Your task to perform on an android device: Is it going to rain tomorrow? Image 0: 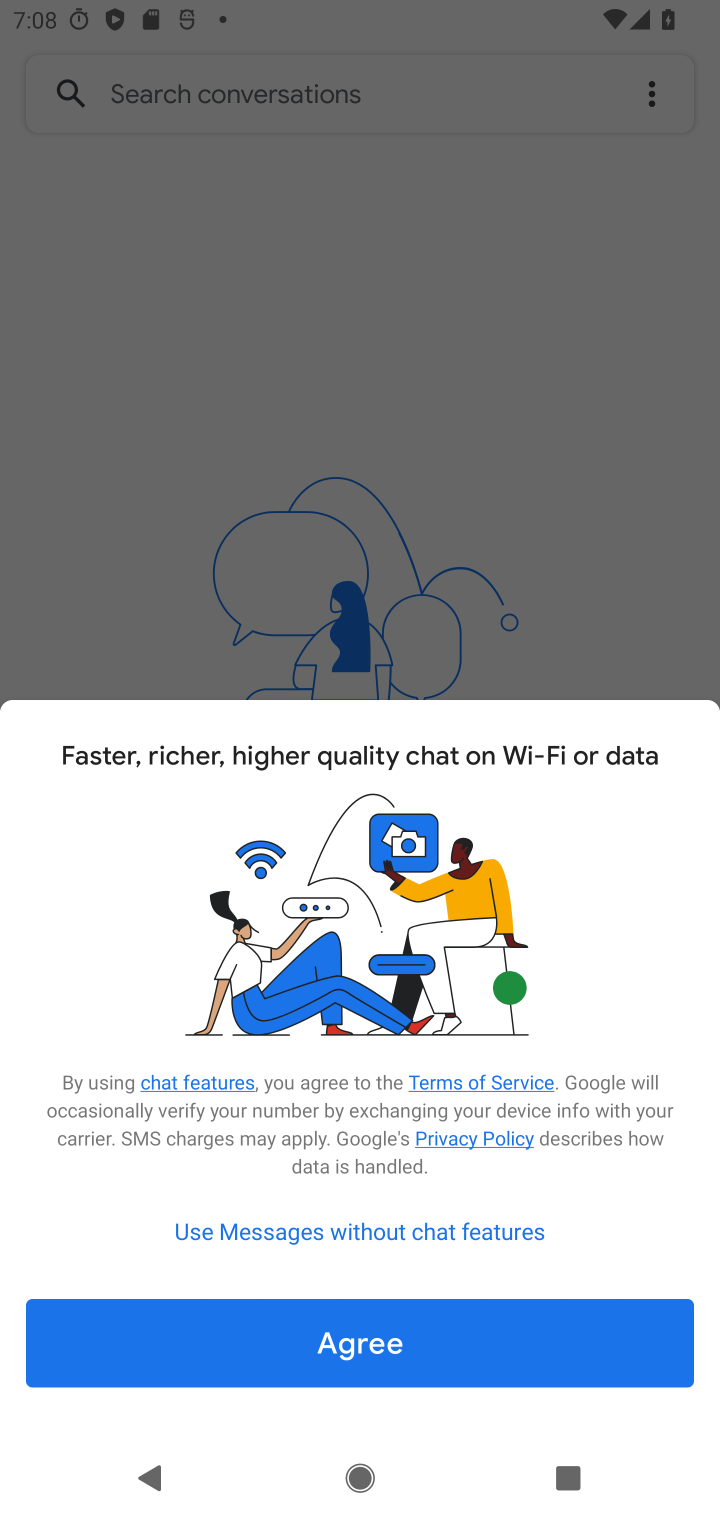
Step 0: press home button
Your task to perform on an android device: Is it going to rain tomorrow? Image 1: 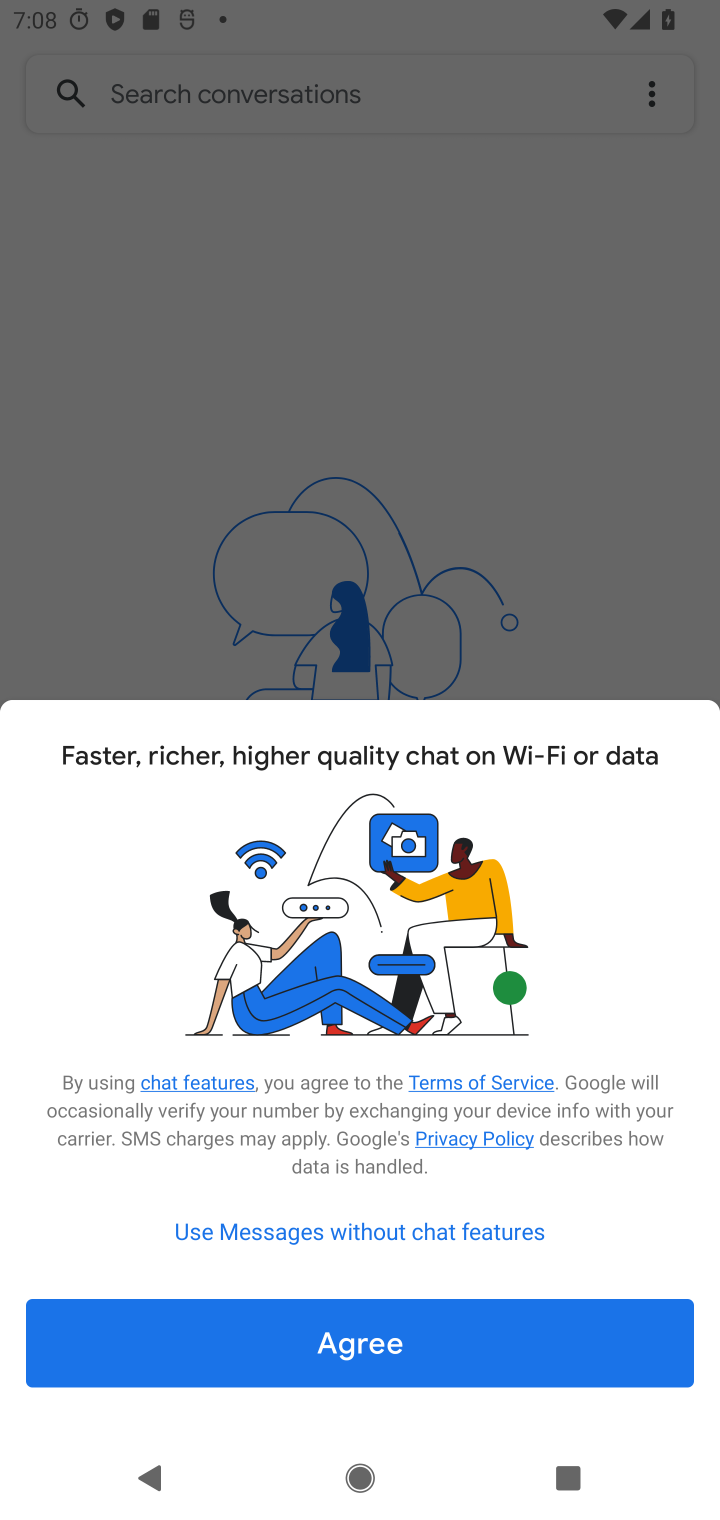
Step 1: press home button
Your task to perform on an android device: Is it going to rain tomorrow? Image 2: 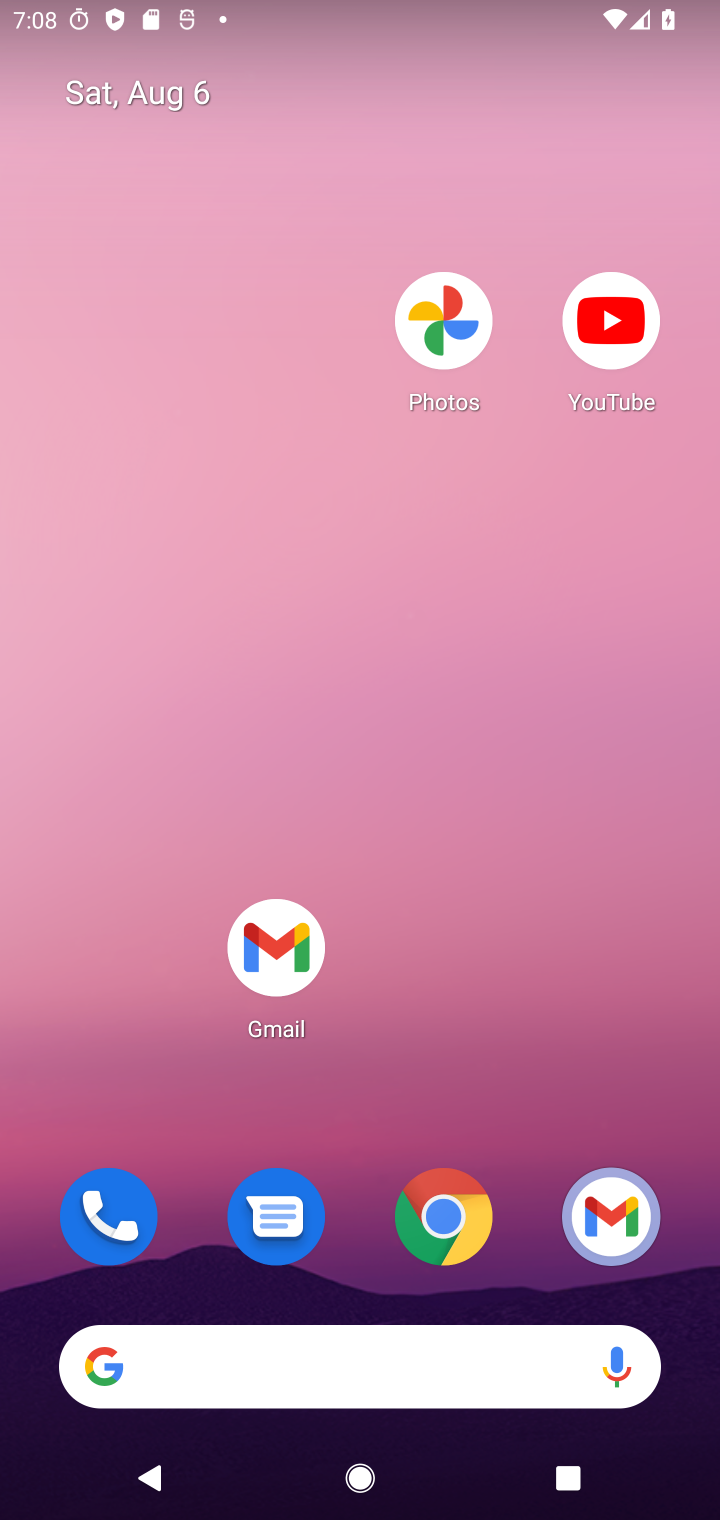
Step 2: drag from (520, 1100) to (641, 160)
Your task to perform on an android device: Is it going to rain tomorrow? Image 3: 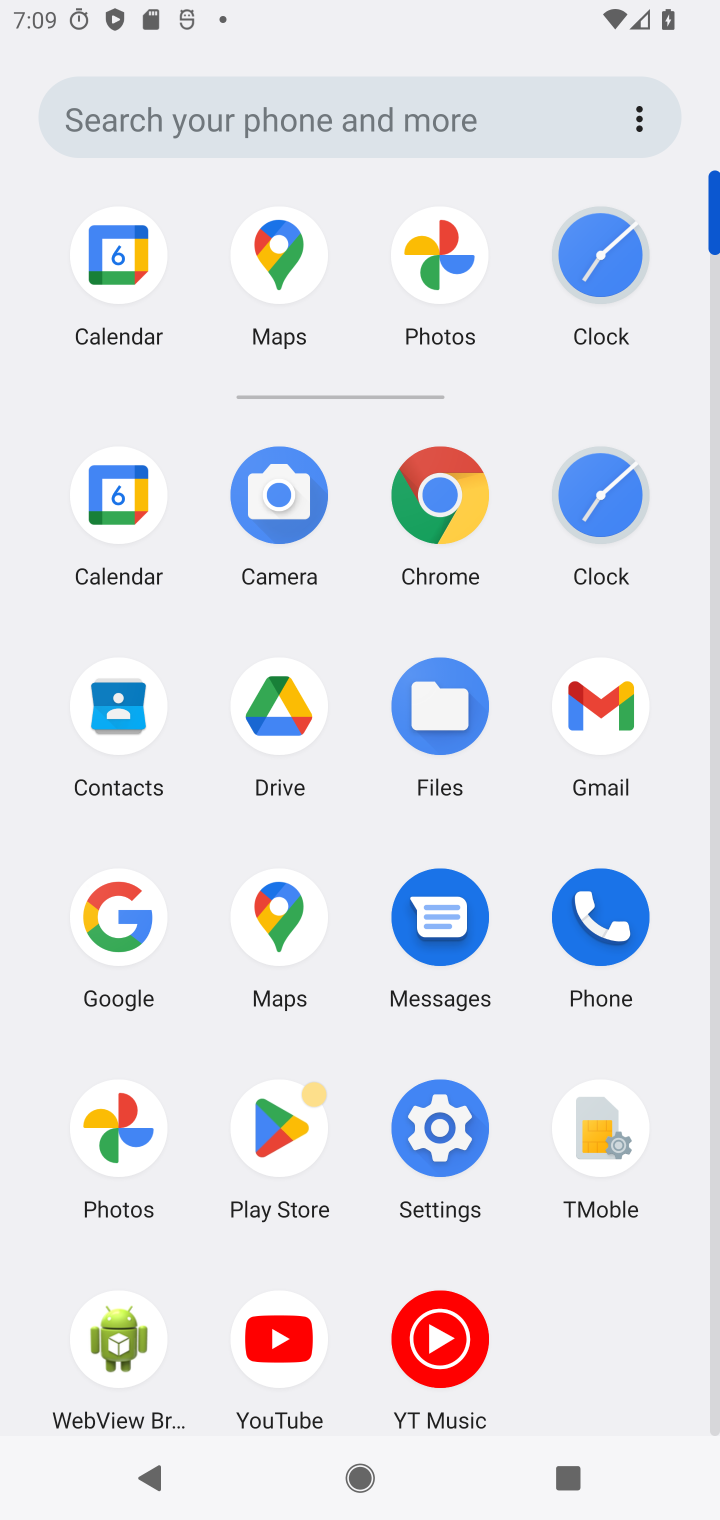
Step 3: click (417, 492)
Your task to perform on an android device: Is it going to rain tomorrow? Image 4: 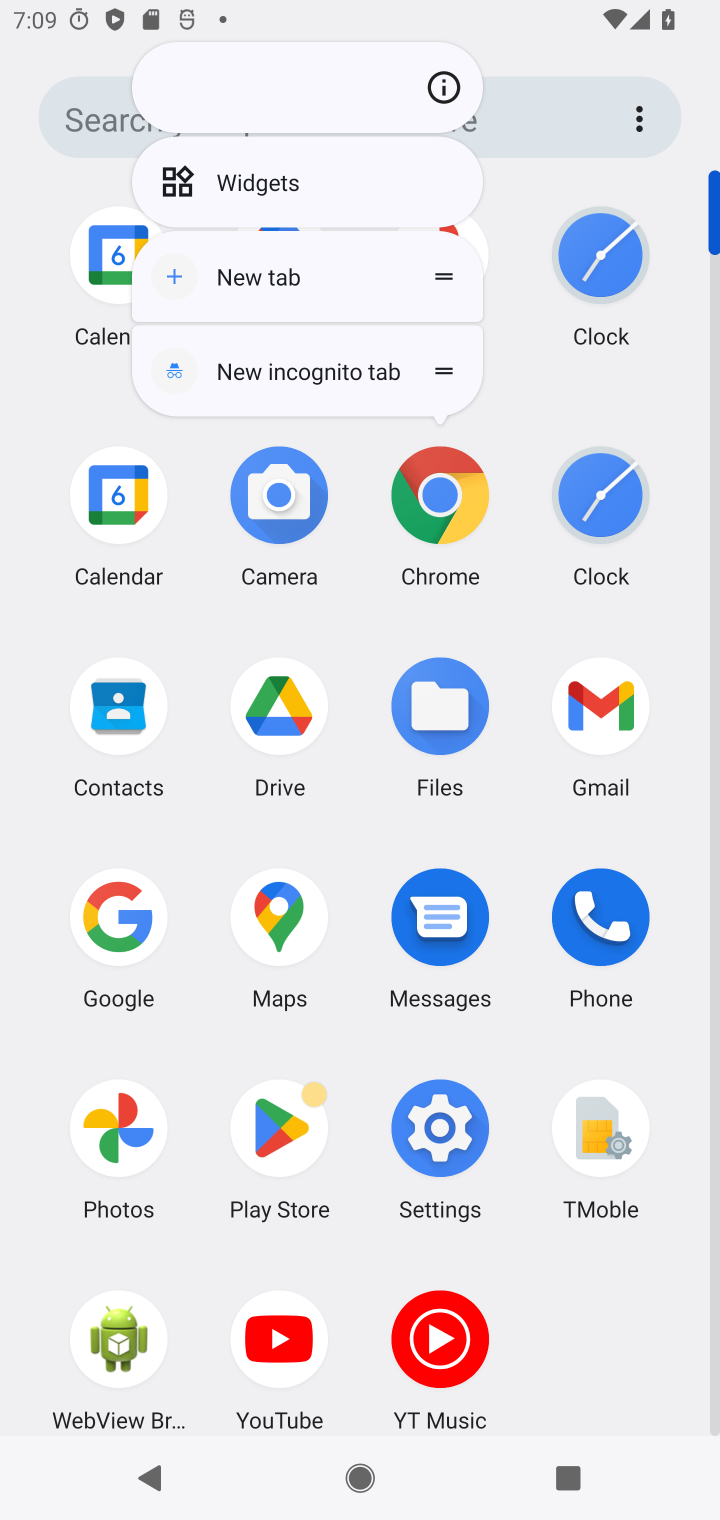
Step 4: click (443, 494)
Your task to perform on an android device: Is it going to rain tomorrow? Image 5: 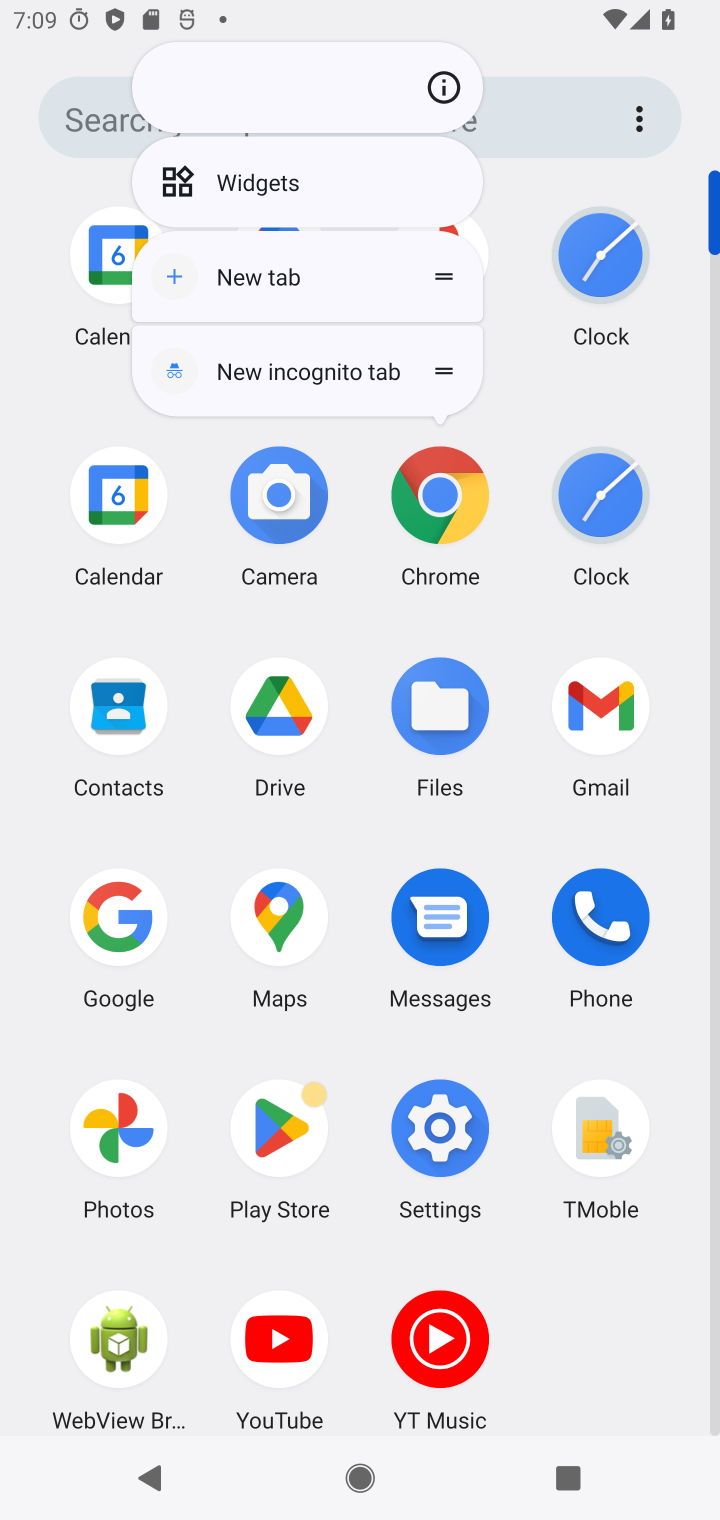
Step 5: click (443, 494)
Your task to perform on an android device: Is it going to rain tomorrow? Image 6: 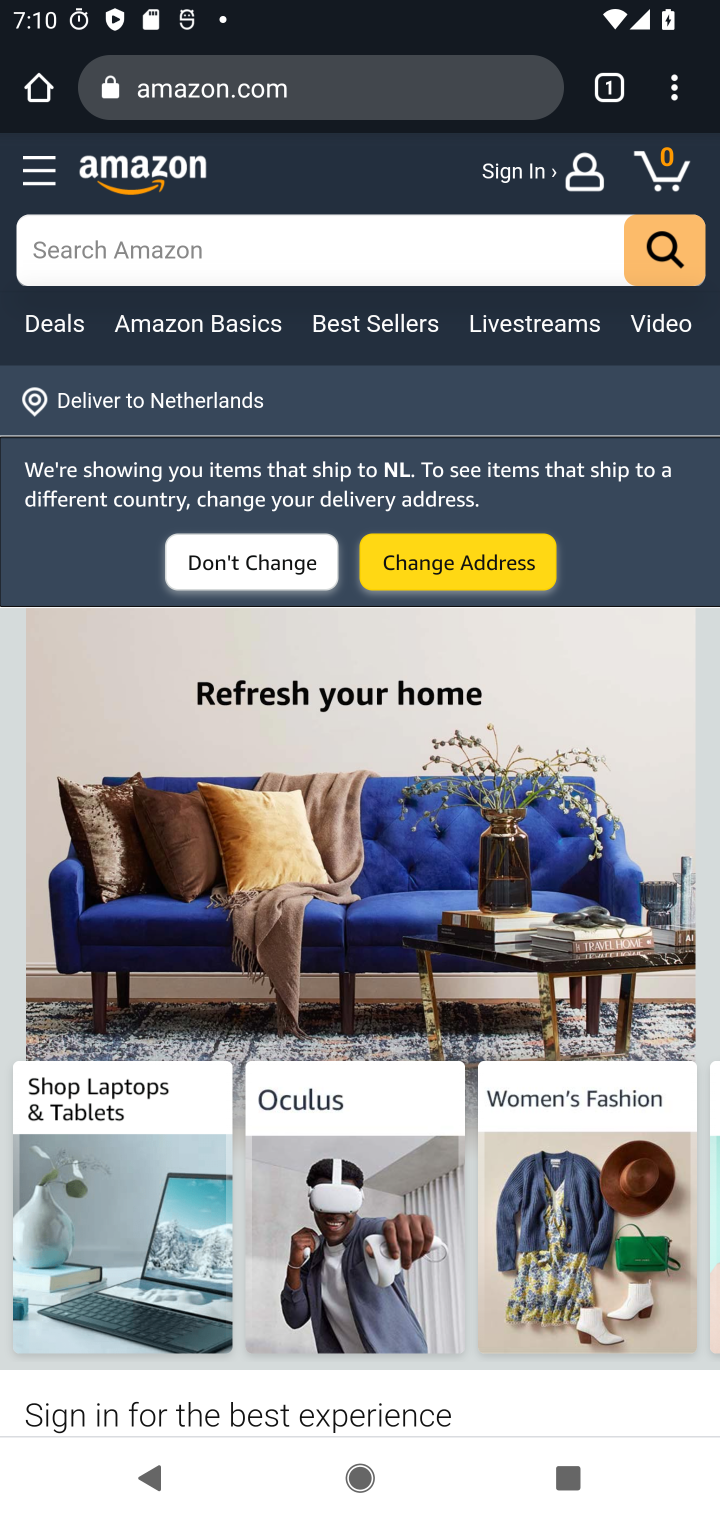
Step 6: click (230, 81)
Your task to perform on an android device: Is it going to rain tomorrow? Image 7: 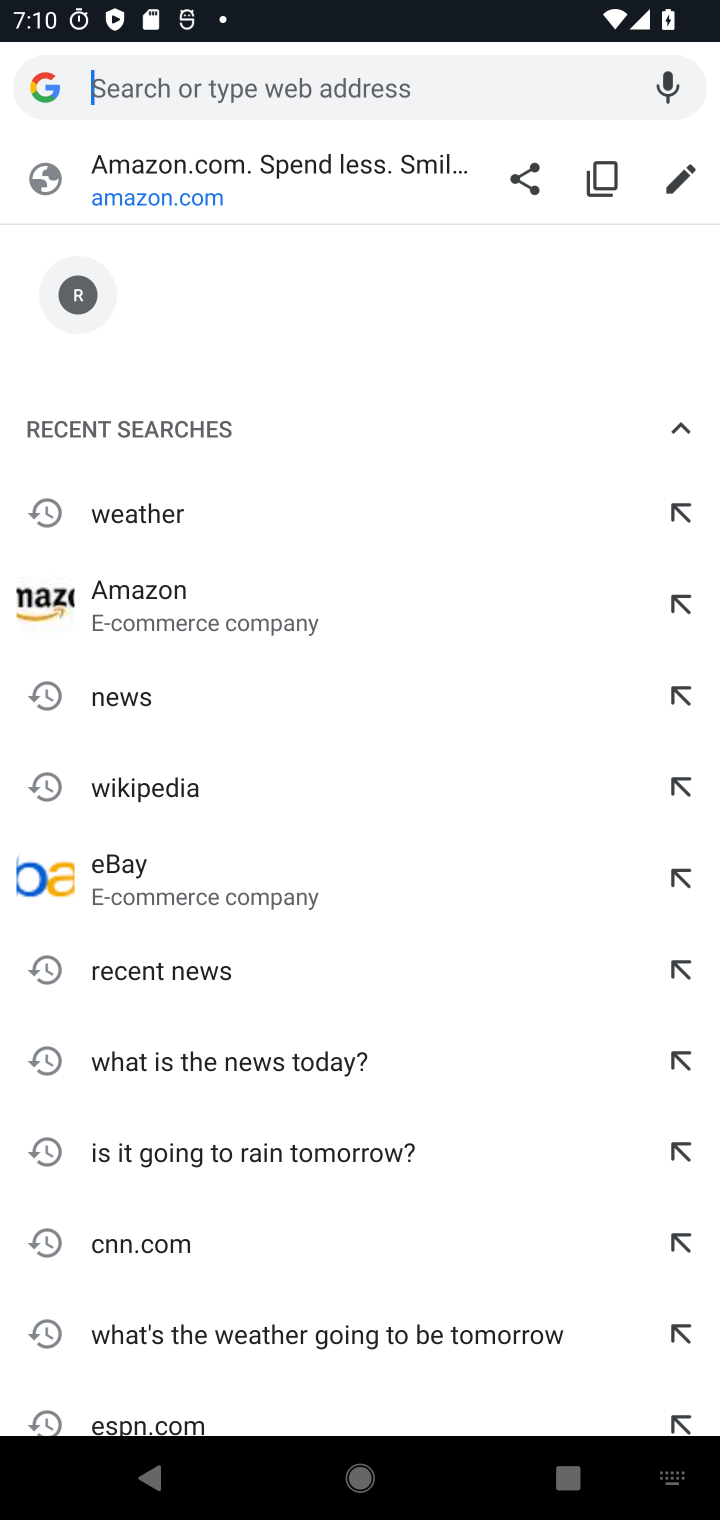
Step 7: click (172, 502)
Your task to perform on an android device: Is it going to rain tomorrow? Image 8: 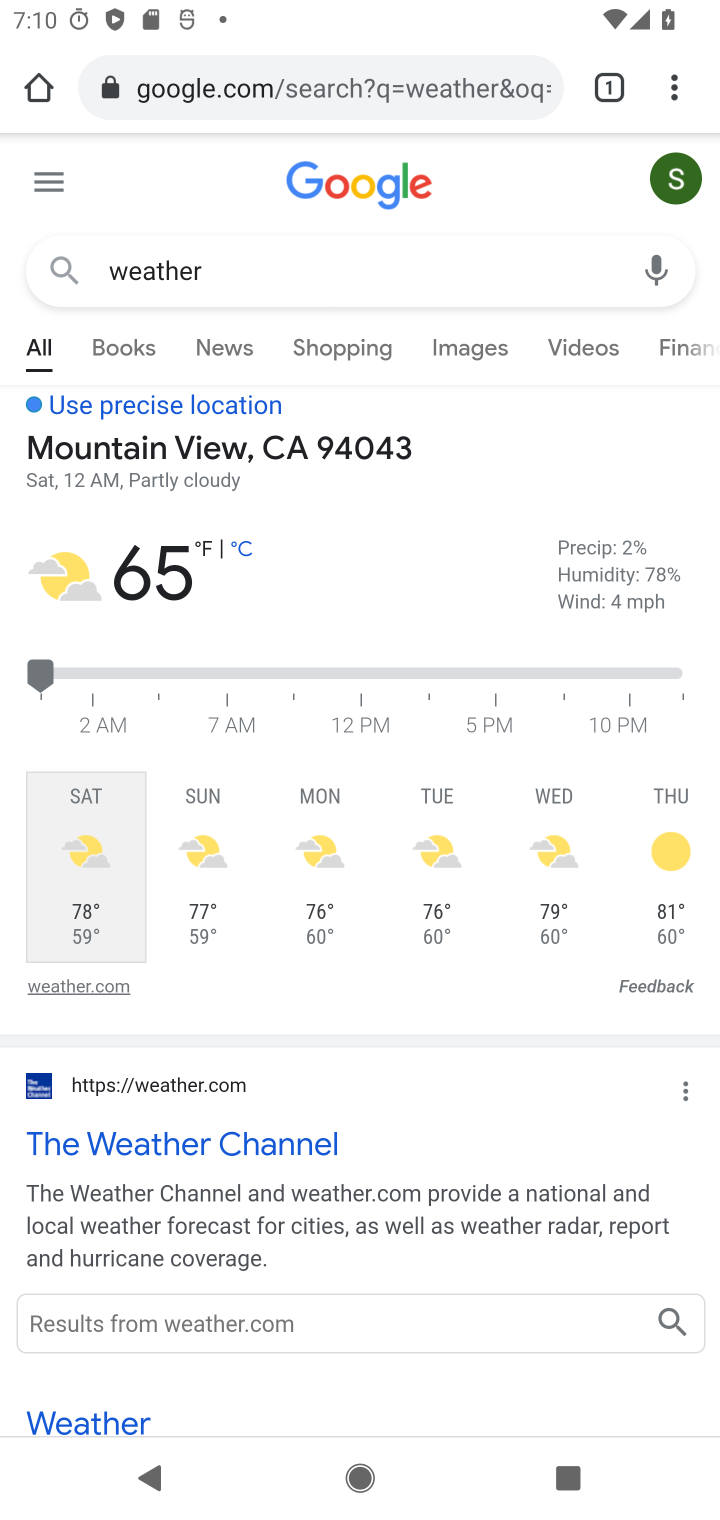
Step 8: click (192, 863)
Your task to perform on an android device: Is it going to rain tomorrow? Image 9: 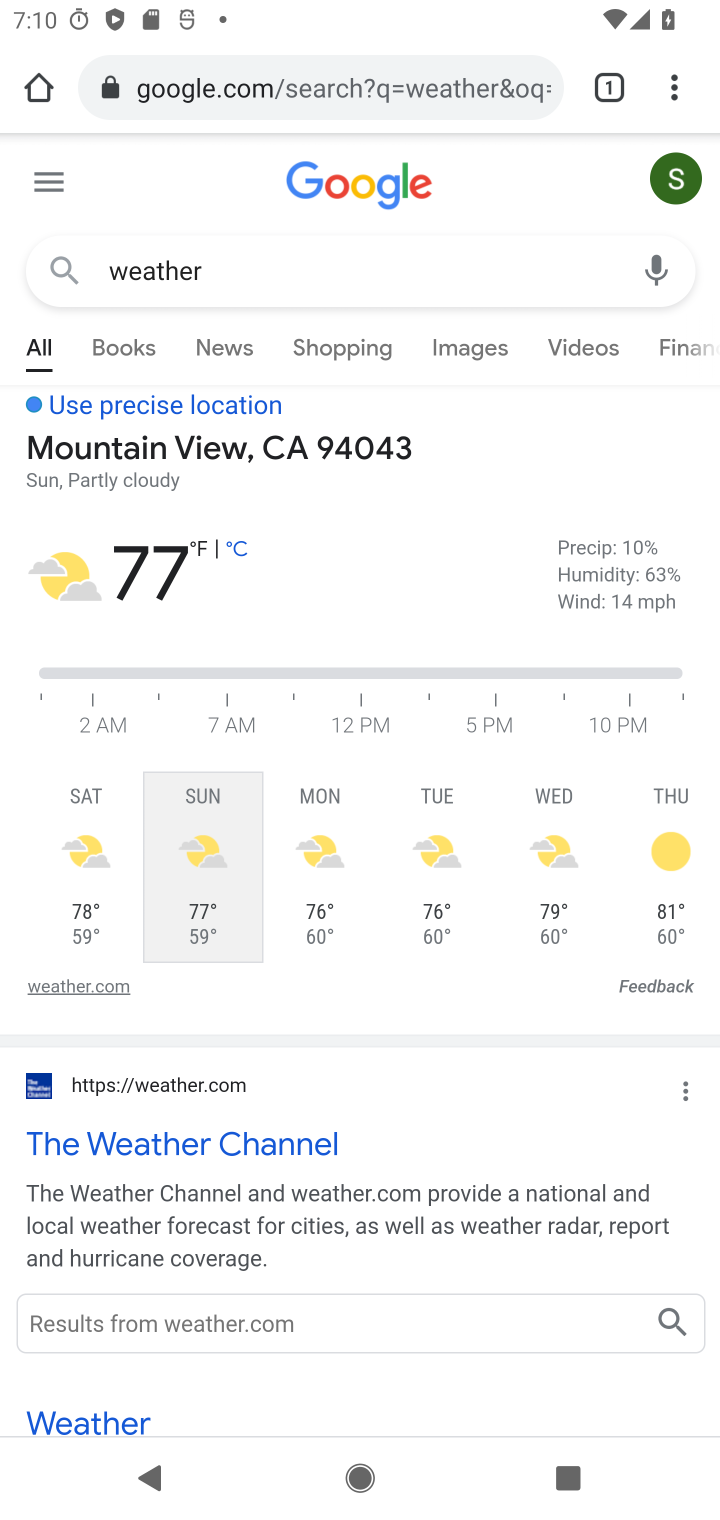
Step 9: task complete